Your task to perform on an android device: turn off picture-in-picture Image 0: 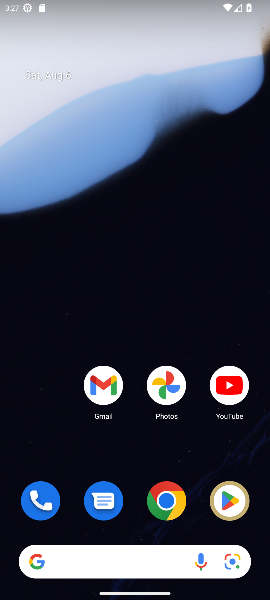
Step 0: click (165, 505)
Your task to perform on an android device: turn off picture-in-picture Image 1: 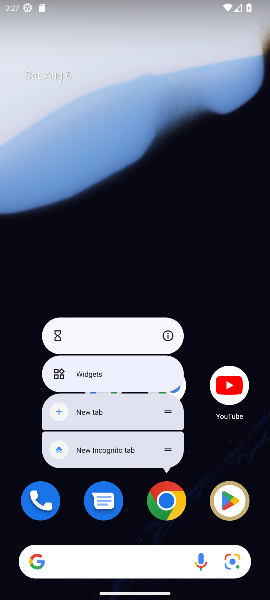
Step 1: click (172, 335)
Your task to perform on an android device: turn off picture-in-picture Image 2: 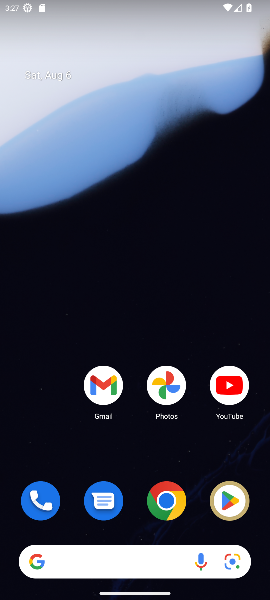
Step 2: click (171, 485)
Your task to perform on an android device: turn off picture-in-picture Image 3: 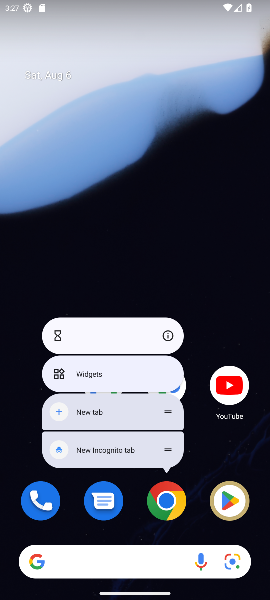
Step 3: click (171, 334)
Your task to perform on an android device: turn off picture-in-picture Image 4: 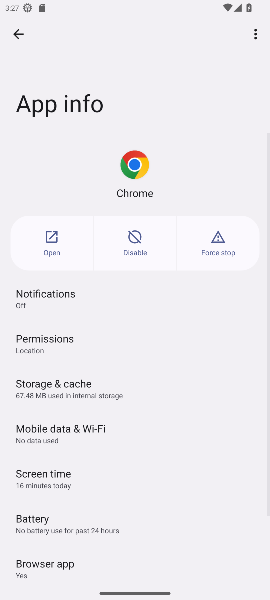
Step 4: task complete